Your task to perform on an android device: check android version Image 0: 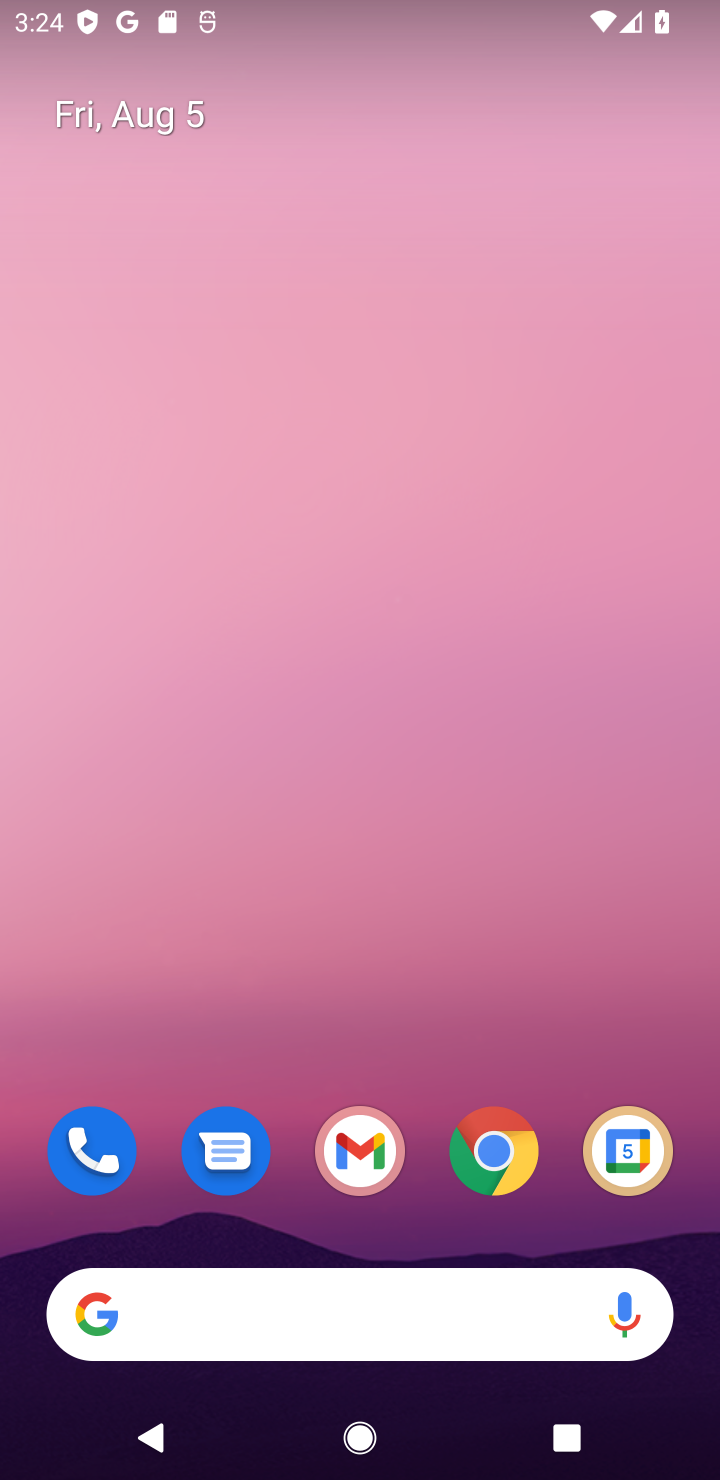
Step 0: drag from (465, 1062) to (454, 108)
Your task to perform on an android device: check android version Image 1: 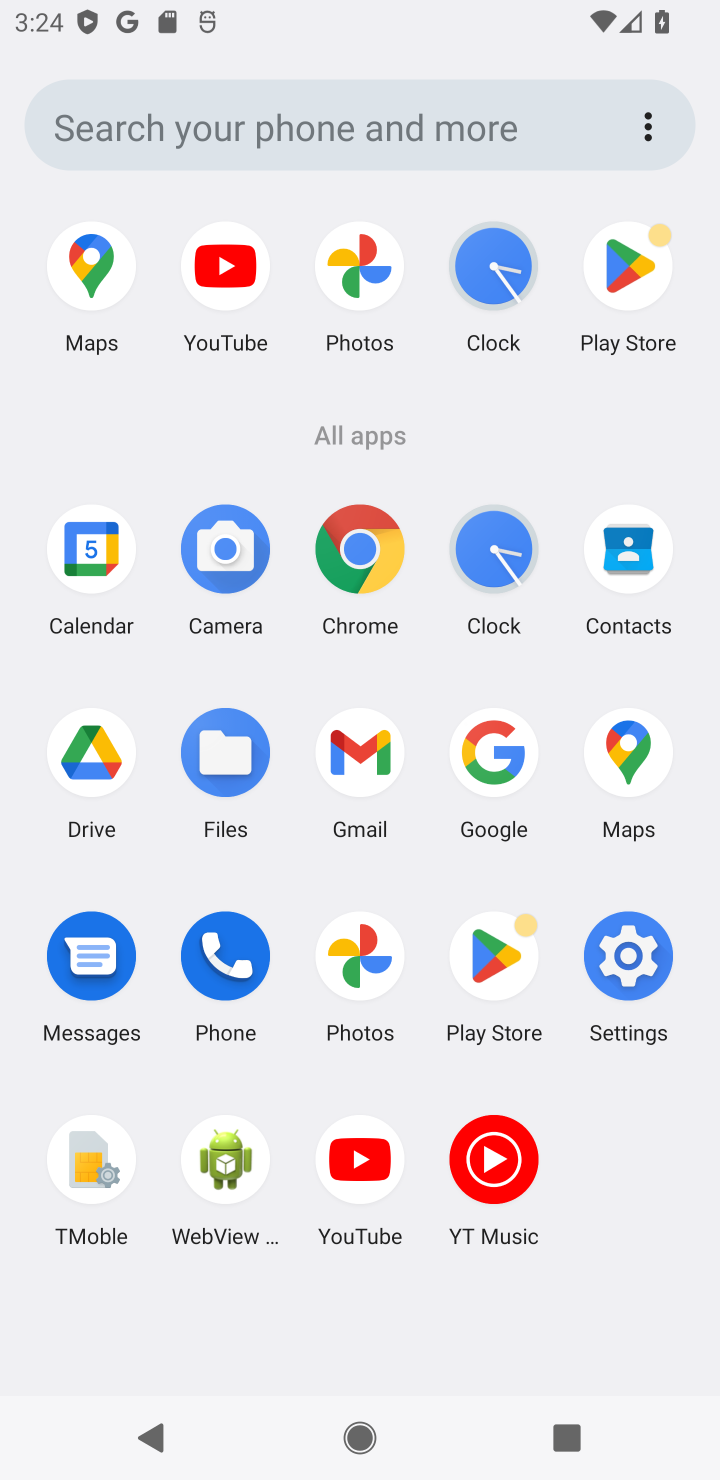
Step 1: click (636, 956)
Your task to perform on an android device: check android version Image 2: 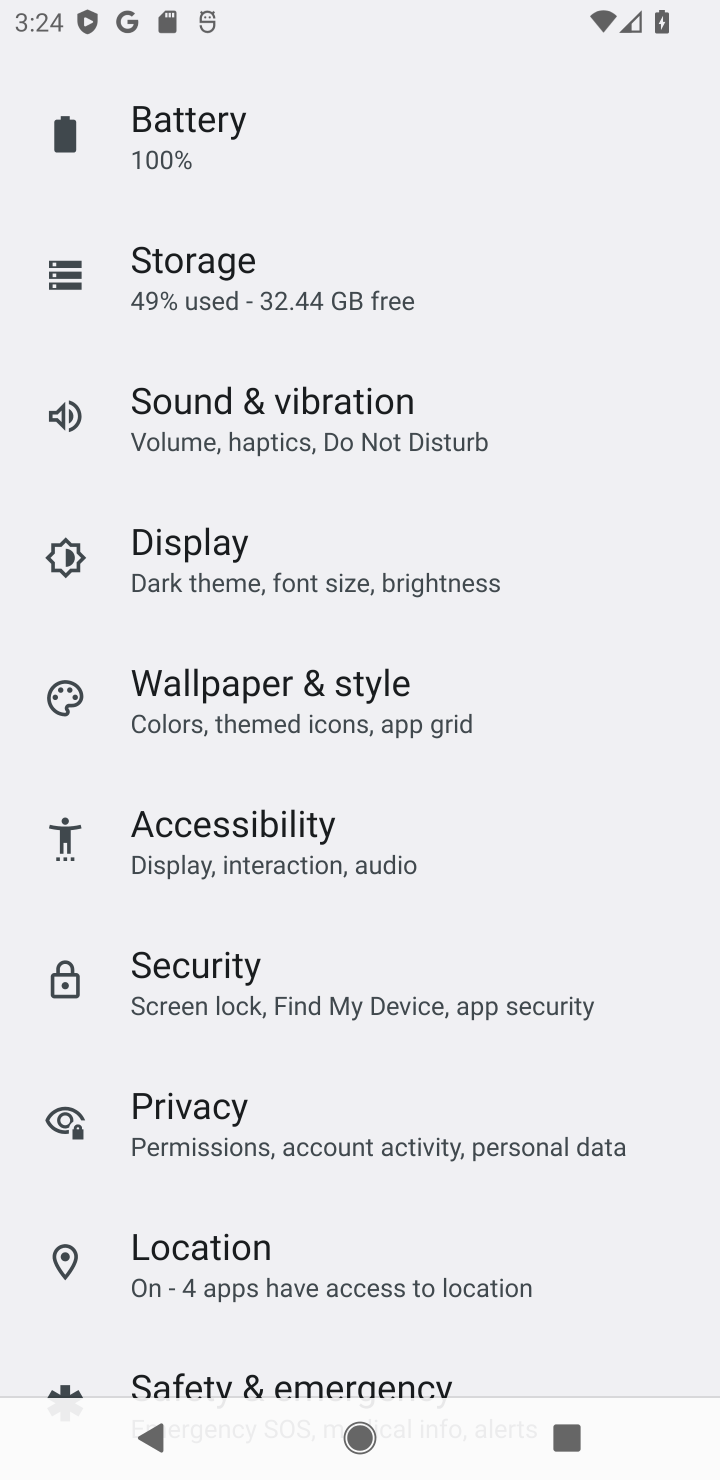
Step 2: drag from (55, 1081) to (136, 249)
Your task to perform on an android device: check android version Image 3: 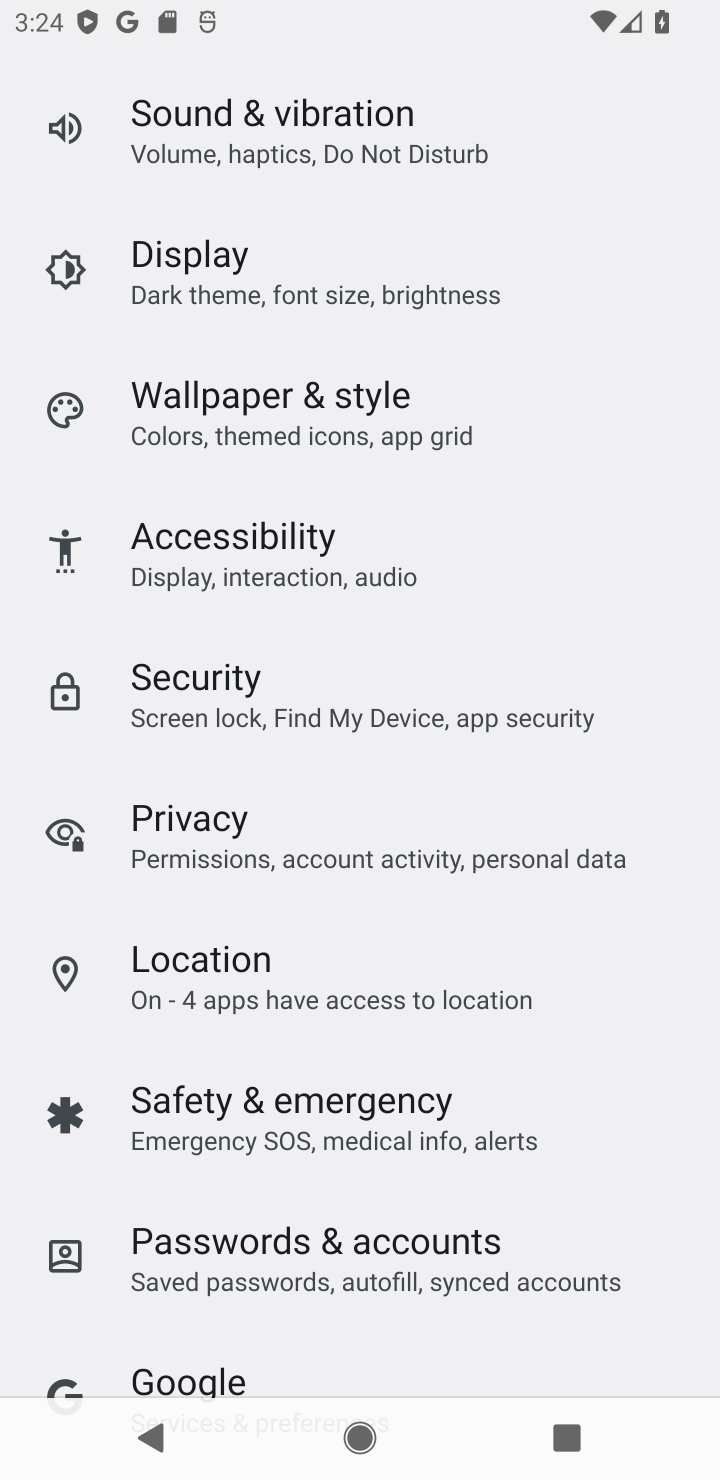
Step 3: drag from (327, 1074) to (393, 370)
Your task to perform on an android device: check android version Image 4: 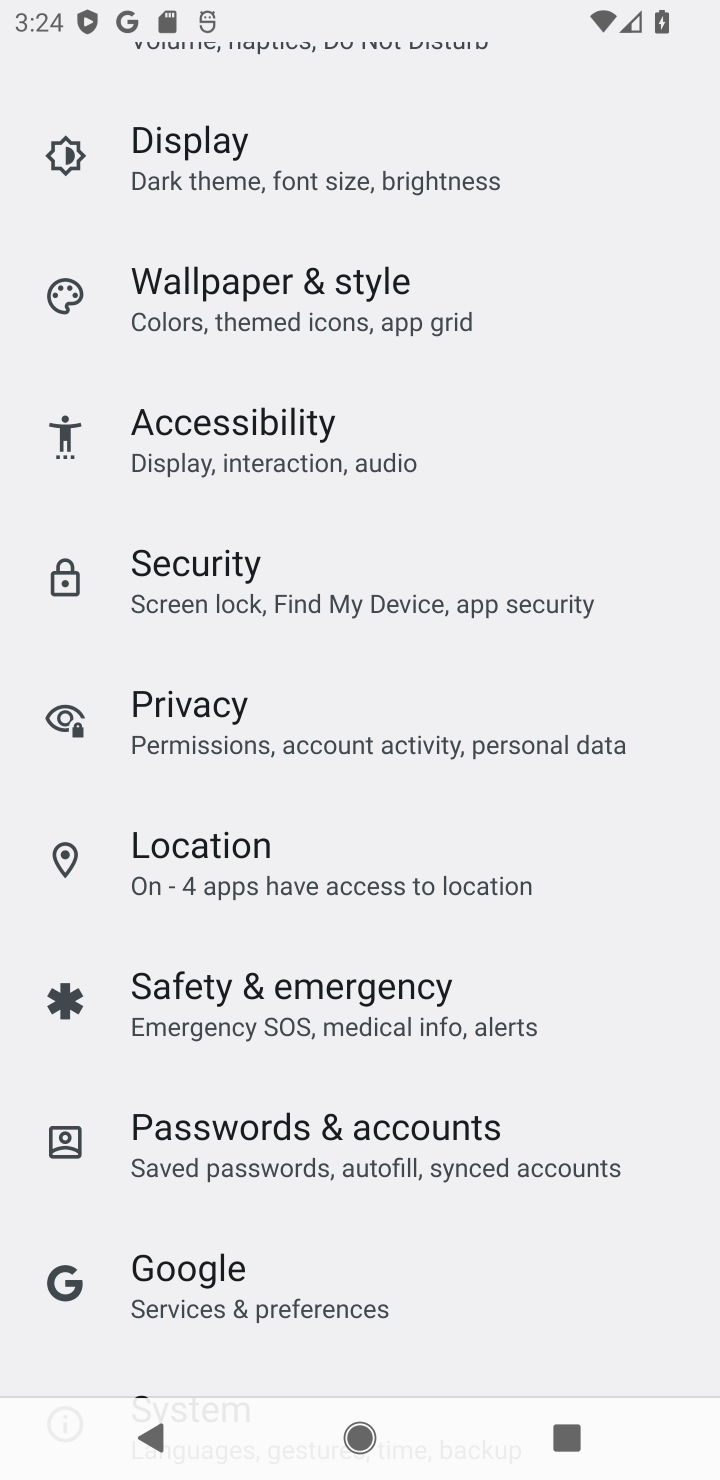
Step 4: drag from (288, 1209) to (284, 539)
Your task to perform on an android device: check android version Image 5: 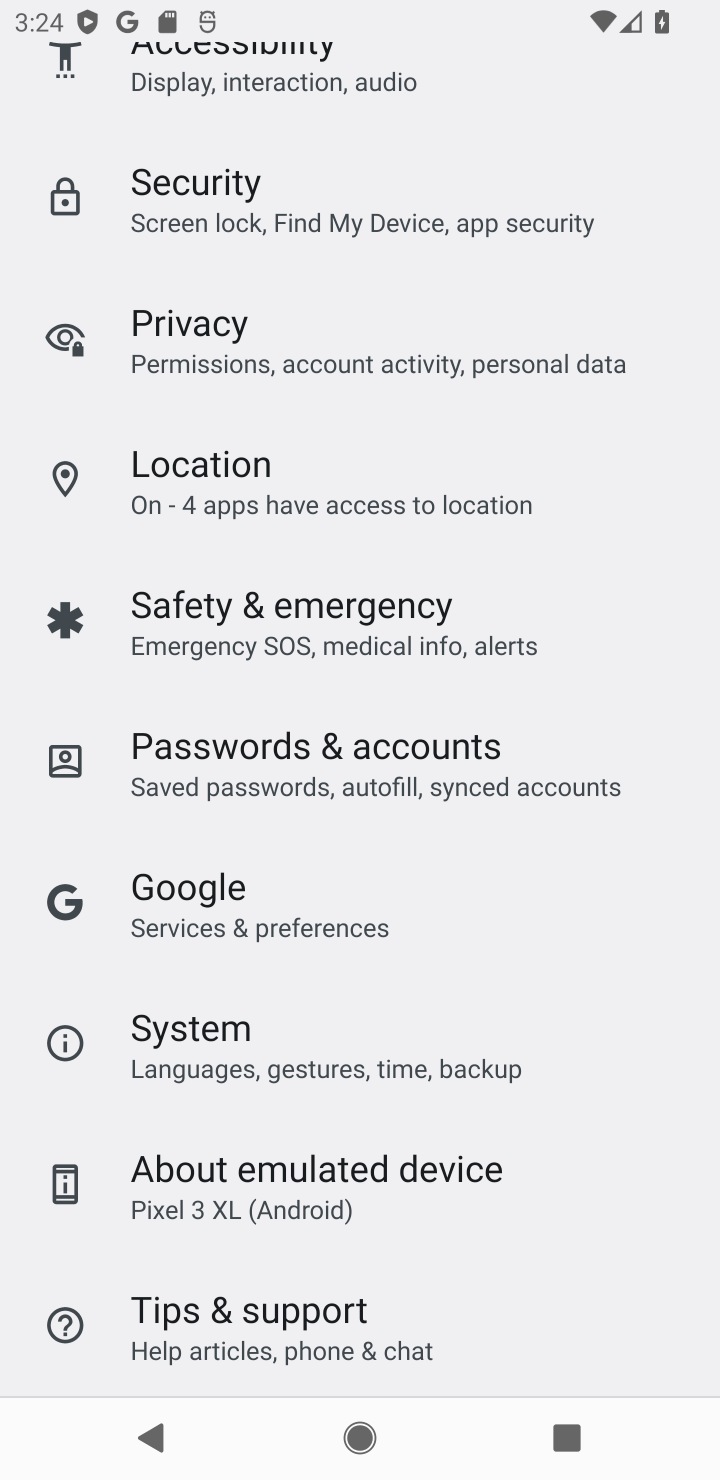
Step 5: click (271, 1188)
Your task to perform on an android device: check android version Image 6: 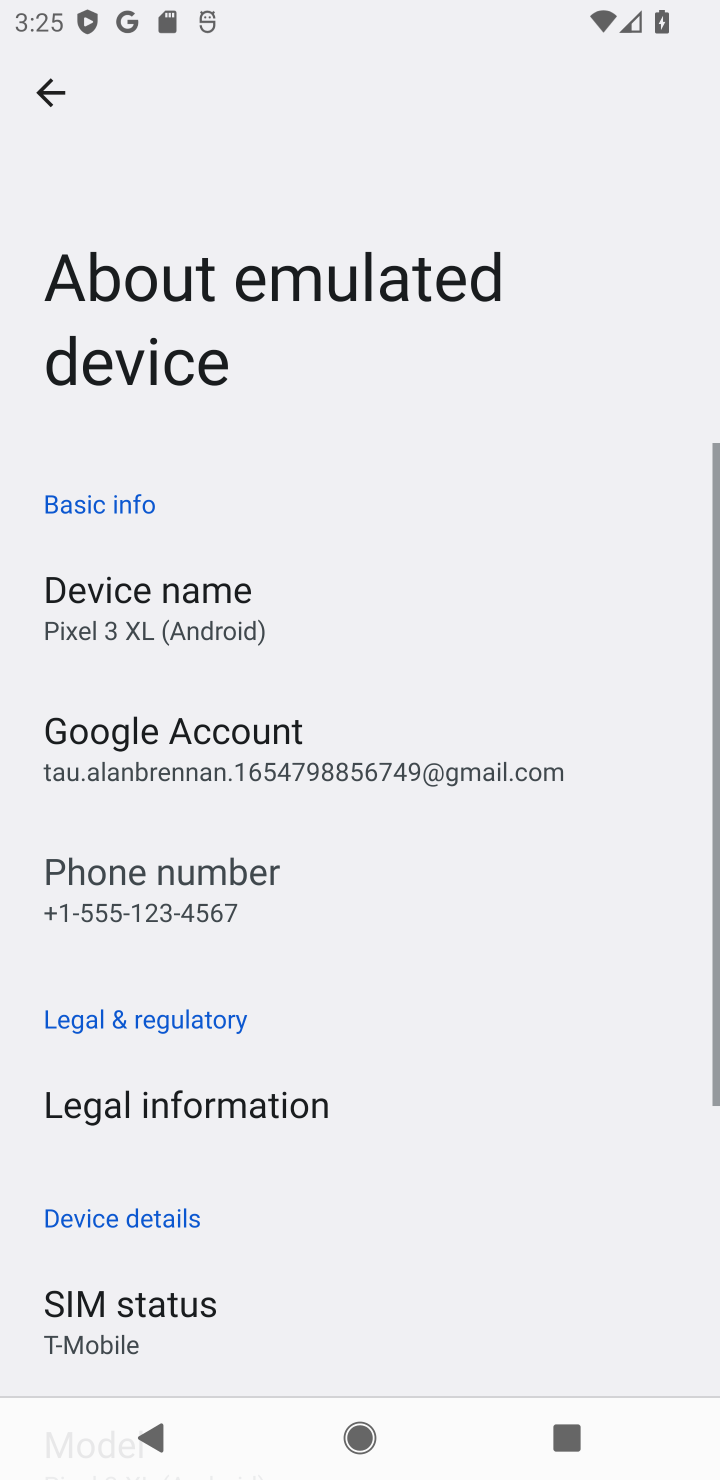
Step 6: drag from (447, 1201) to (410, 824)
Your task to perform on an android device: check android version Image 7: 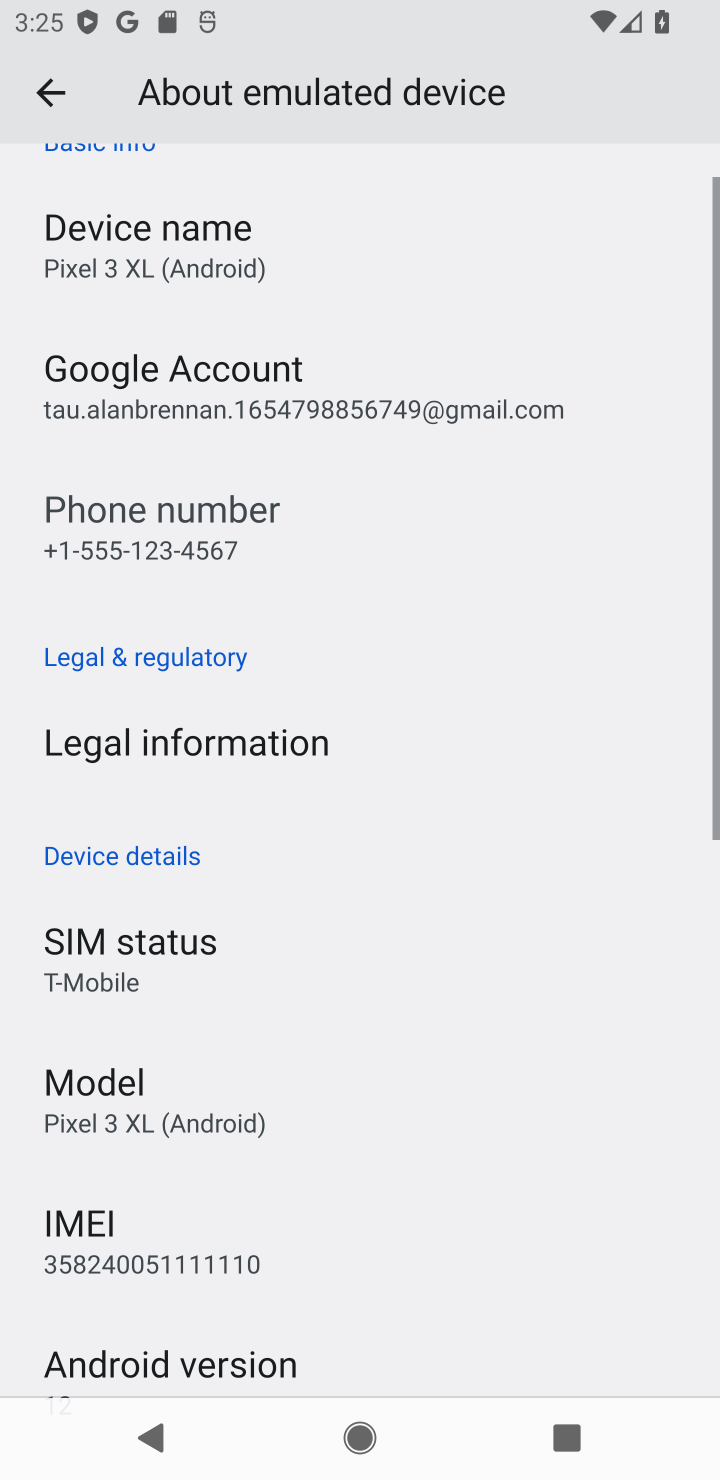
Step 7: drag from (314, 1083) to (205, 340)
Your task to perform on an android device: check android version Image 8: 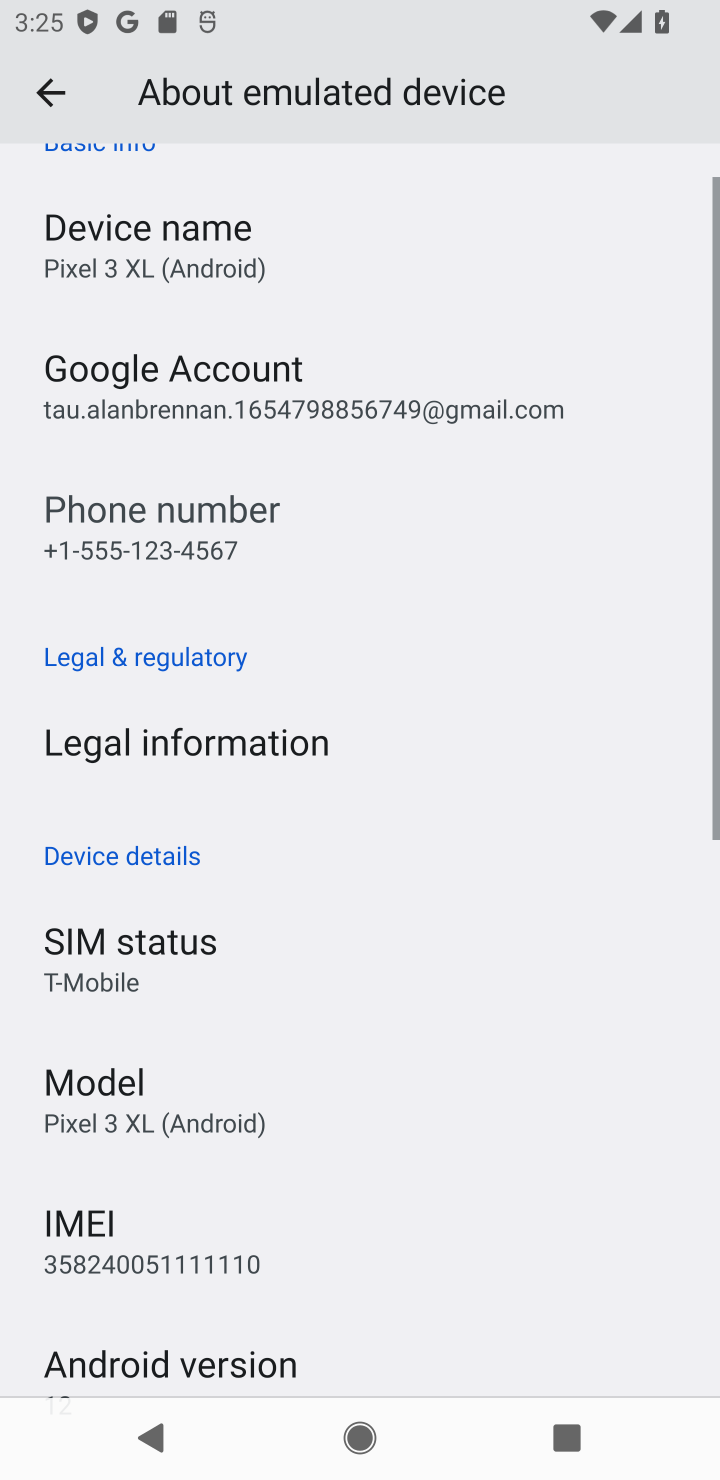
Step 8: click (214, 1349)
Your task to perform on an android device: check android version Image 9: 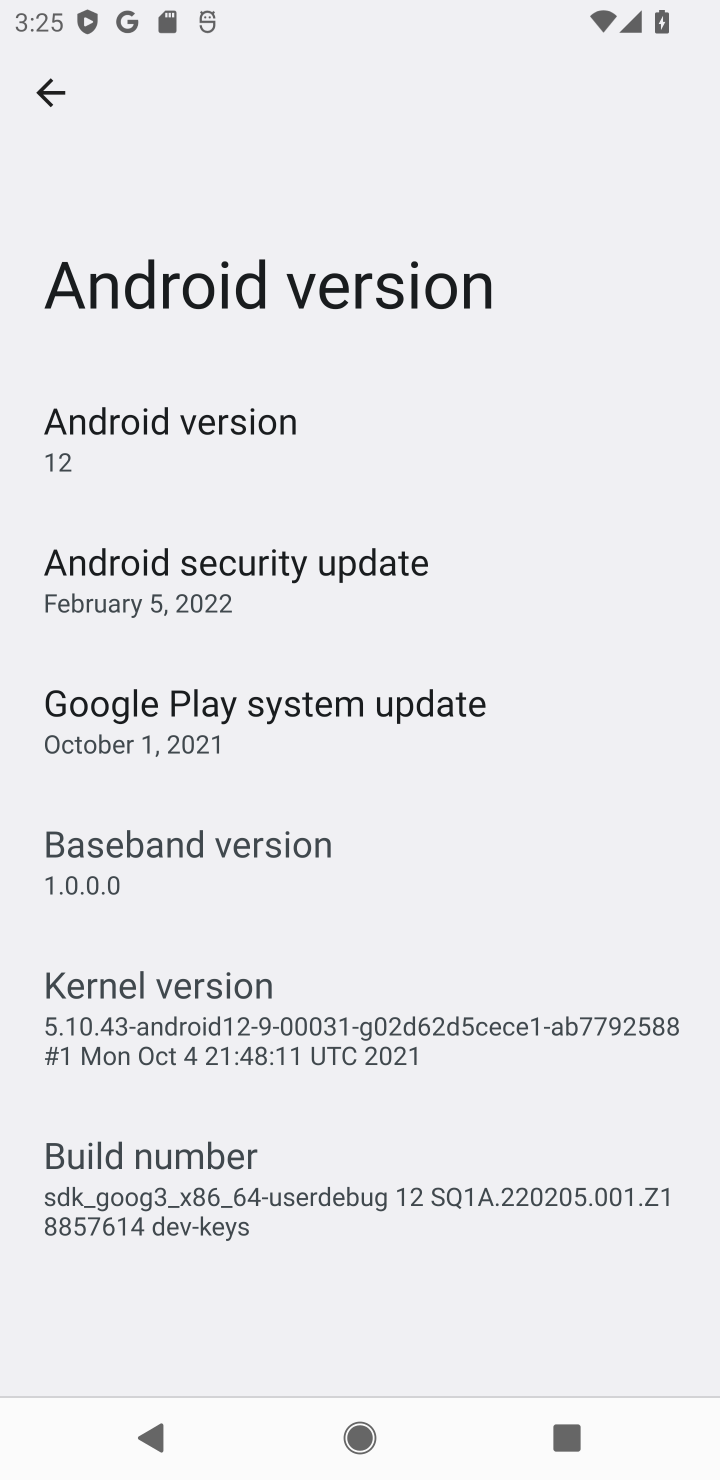
Step 9: click (197, 431)
Your task to perform on an android device: check android version Image 10: 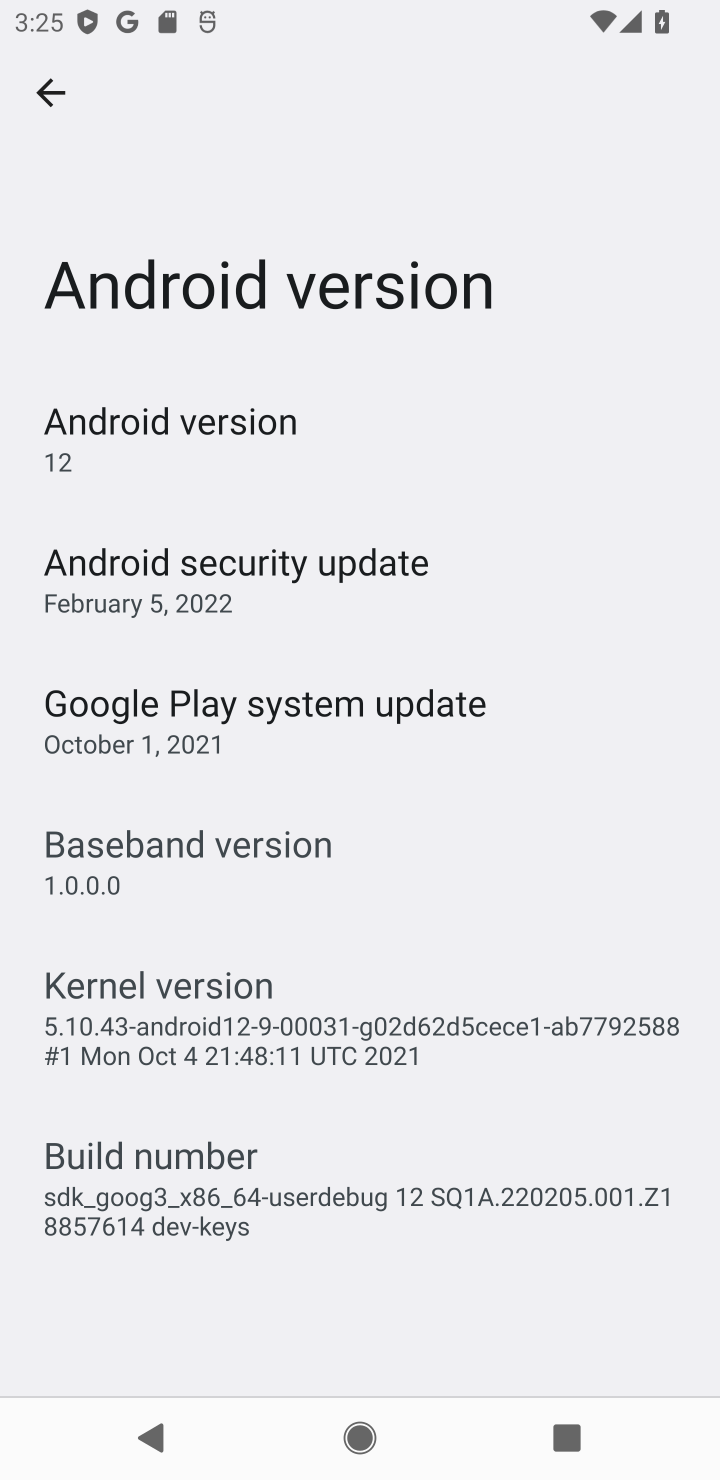
Step 10: task complete